Your task to perform on an android device: choose inbox layout in the gmail app Image 0: 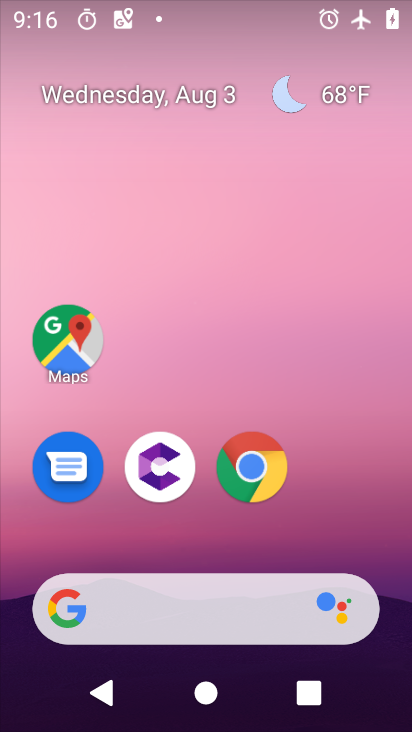
Step 0: drag from (368, 520) to (390, 65)
Your task to perform on an android device: choose inbox layout in the gmail app Image 1: 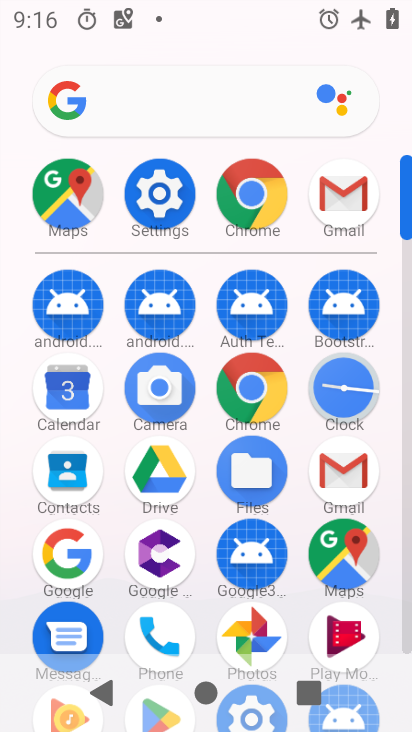
Step 1: click (358, 489)
Your task to perform on an android device: choose inbox layout in the gmail app Image 2: 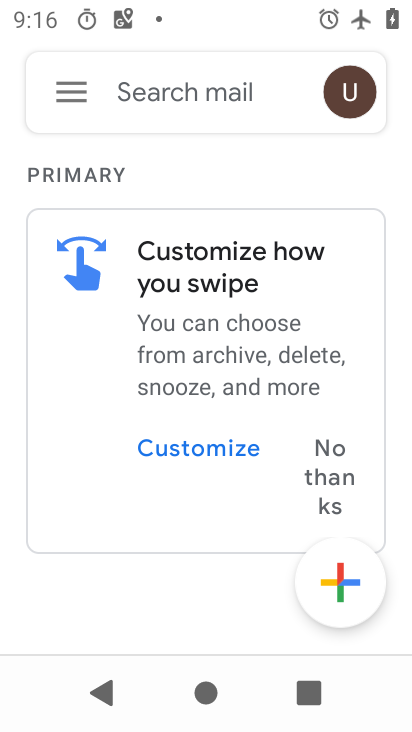
Step 2: click (54, 86)
Your task to perform on an android device: choose inbox layout in the gmail app Image 3: 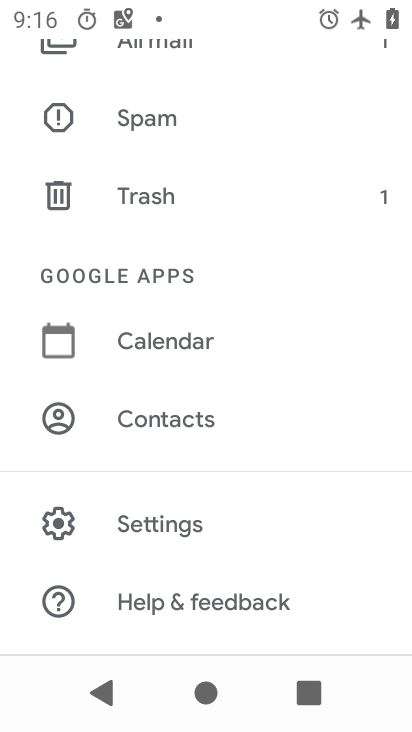
Step 3: click (189, 543)
Your task to perform on an android device: choose inbox layout in the gmail app Image 4: 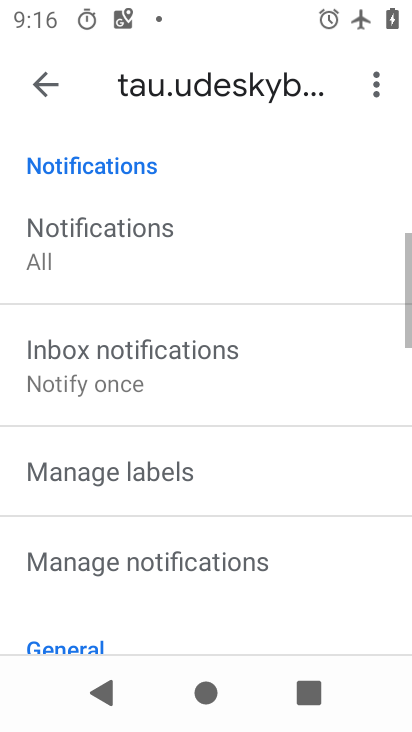
Step 4: drag from (276, 239) to (305, 720)
Your task to perform on an android device: choose inbox layout in the gmail app Image 5: 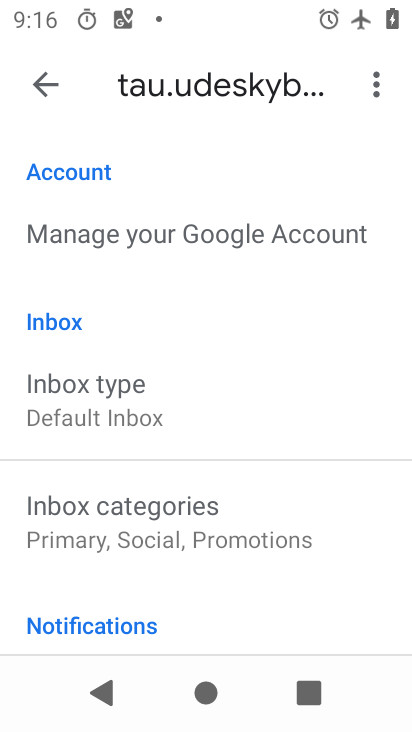
Step 5: click (119, 418)
Your task to perform on an android device: choose inbox layout in the gmail app Image 6: 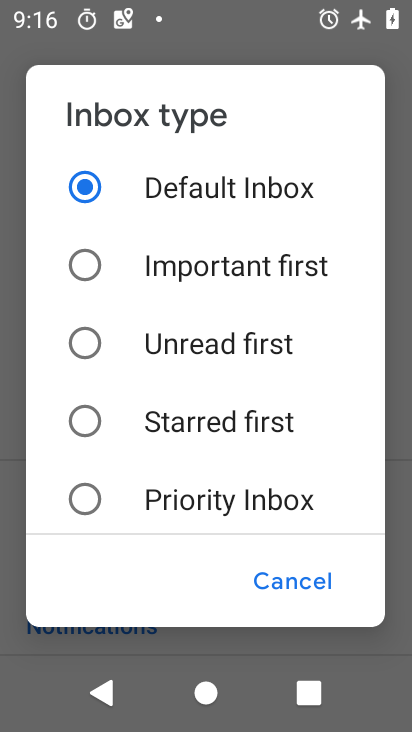
Step 6: task complete